Your task to perform on an android device: find snoozed emails in the gmail app Image 0: 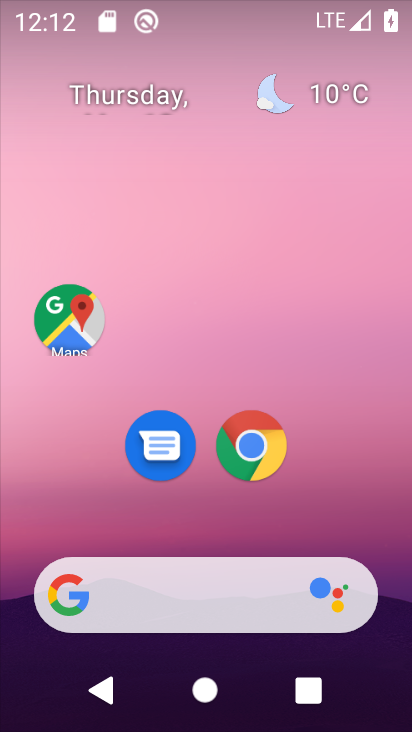
Step 0: click (242, 454)
Your task to perform on an android device: find snoozed emails in the gmail app Image 1: 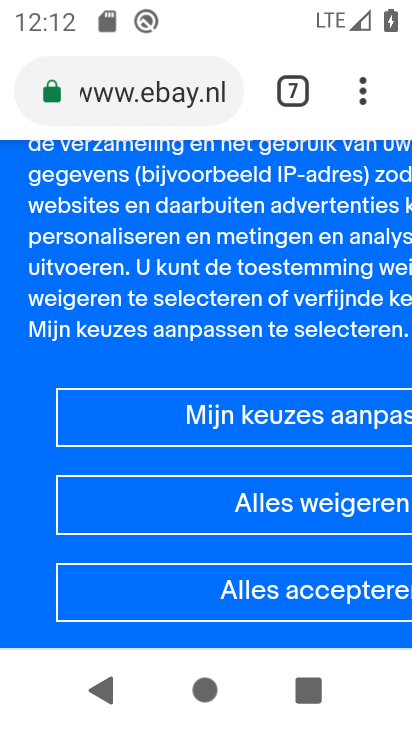
Step 1: press back button
Your task to perform on an android device: find snoozed emails in the gmail app Image 2: 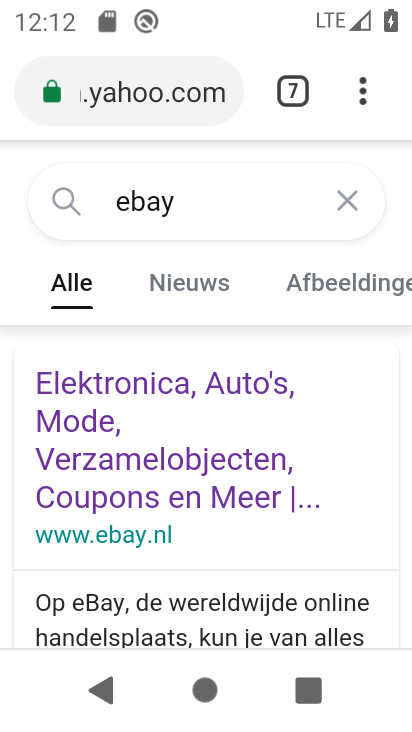
Step 2: press back button
Your task to perform on an android device: find snoozed emails in the gmail app Image 3: 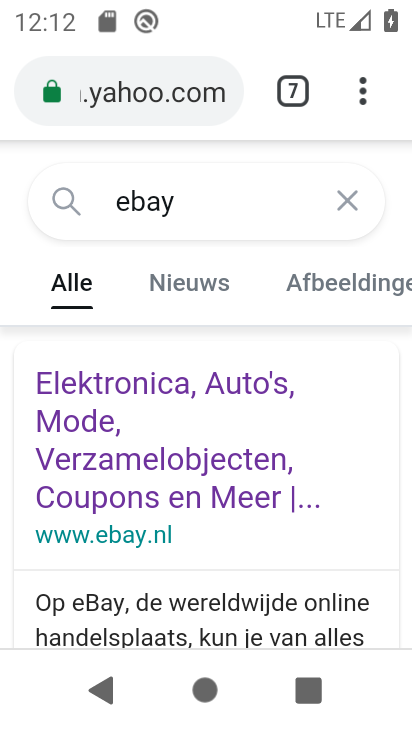
Step 3: press back button
Your task to perform on an android device: find snoozed emails in the gmail app Image 4: 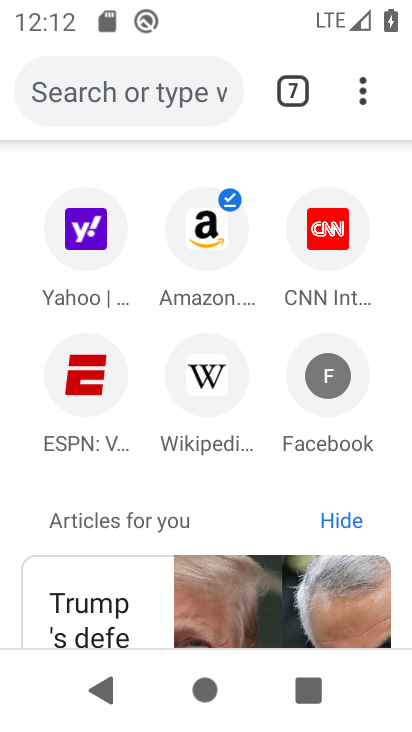
Step 4: press back button
Your task to perform on an android device: find snoozed emails in the gmail app Image 5: 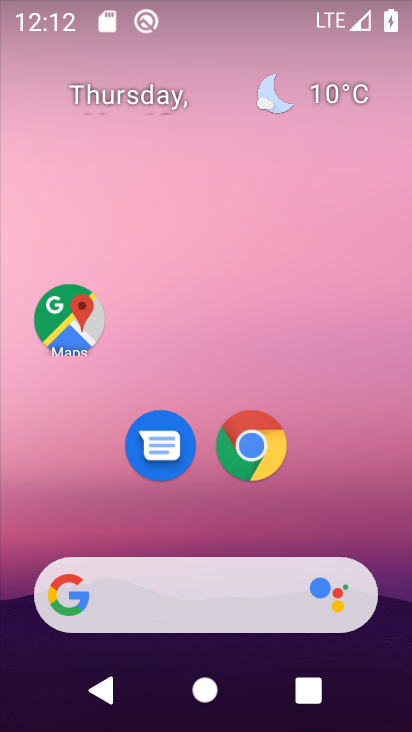
Step 5: drag from (196, 500) to (274, 55)
Your task to perform on an android device: find snoozed emails in the gmail app Image 6: 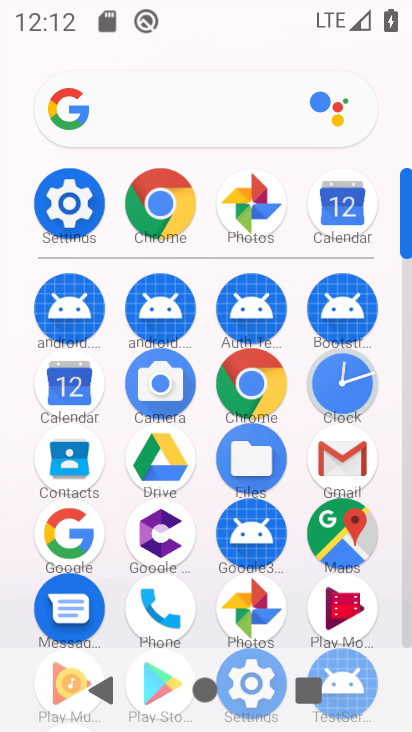
Step 6: click (331, 458)
Your task to perform on an android device: find snoozed emails in the gmail app Image 7: 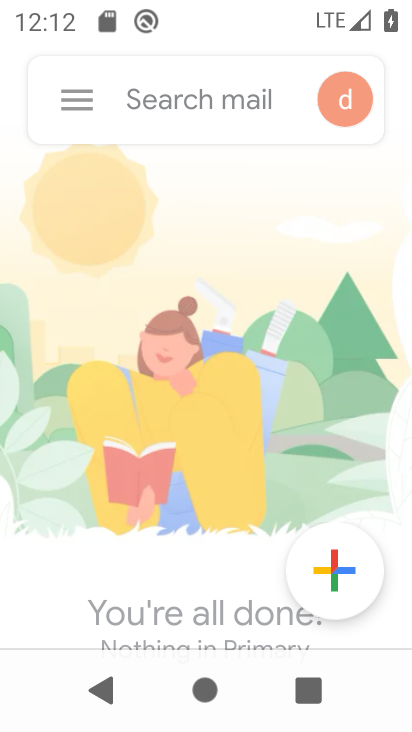
Step 7: click (76, 98)
Your task to perform on an android device: find snoozed emails in the gmail app Image 8: 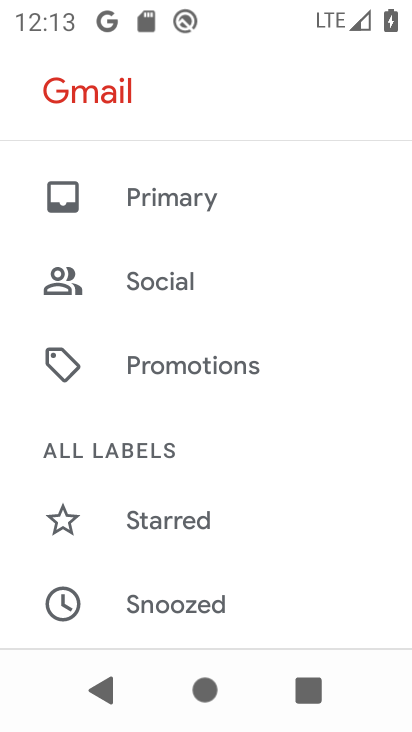
Step 8: drag from (170, 531) to (301, 22)
Your task to perform on an android device: find snoozed emails in the gmail app Image 9: 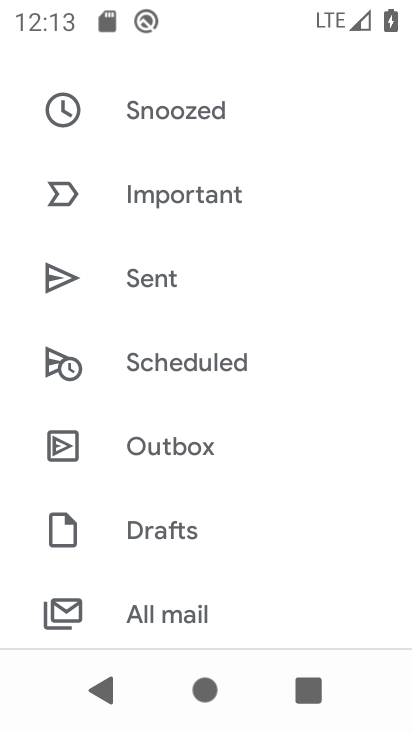
Step 9: click (163, 112)
Your task to perform on an android device: find snoozed emails in the gmail app Image 10: 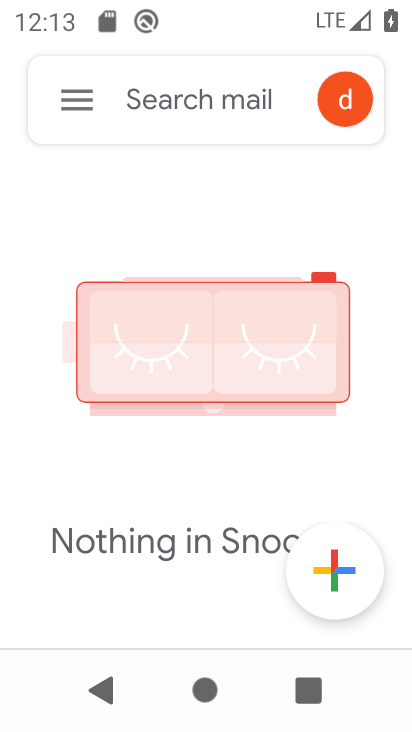
Step 10: task complete